Your task to perform on an android device: turn on javascript in the chrome app Image 0: 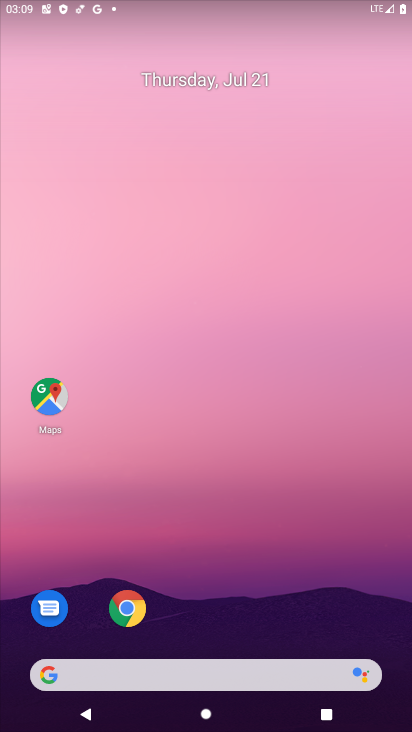
Step 0: click (137, 616)
Your task to perform on an android device: turn on javascript in the chrome app Image 1: 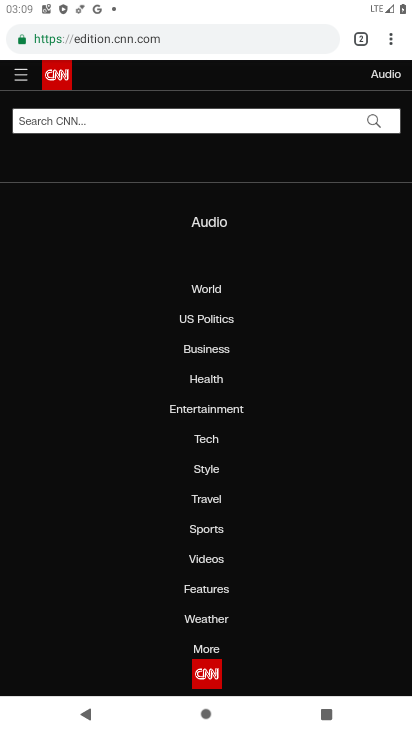
Step 1: drag from (396, 33) to (282, 506)
Your task to perform on an android device: turn on javascript in the chrome app Image 2: 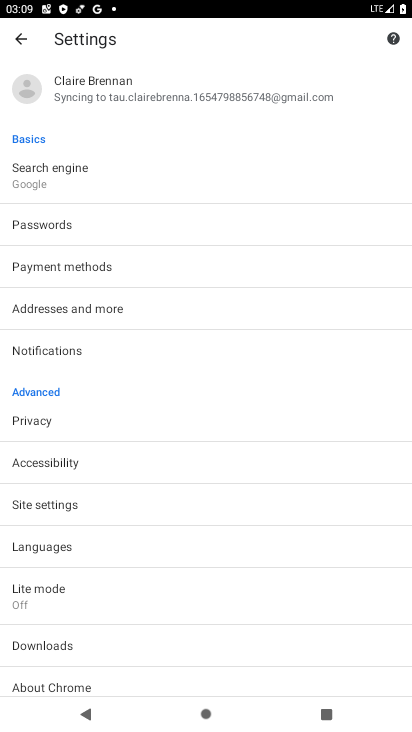
Step 2: click (35, 512)
Your task to perform on an android device: turn on javascript in the chrome app Image 3: 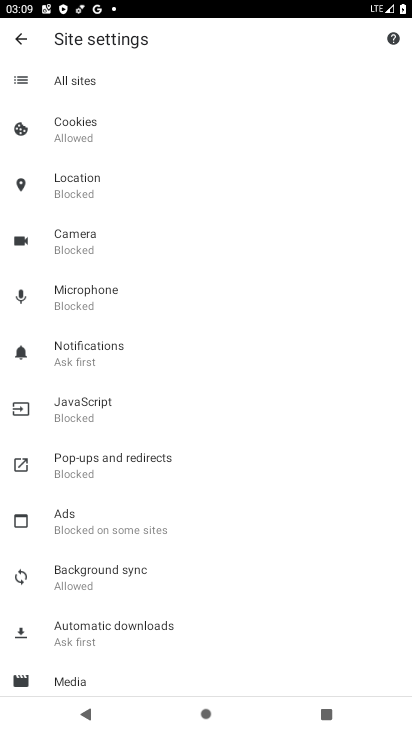
Step 3: click (58, 428)
Your task to perform on an android device: turn on javascript in the chrome app Image 4: 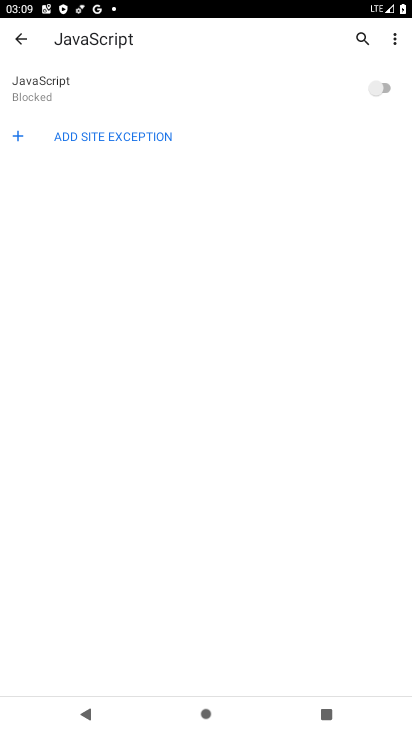
Step 4: click (385, 81)
Your task to perform on an android device: turn on javascript in the chrome app Image 5: 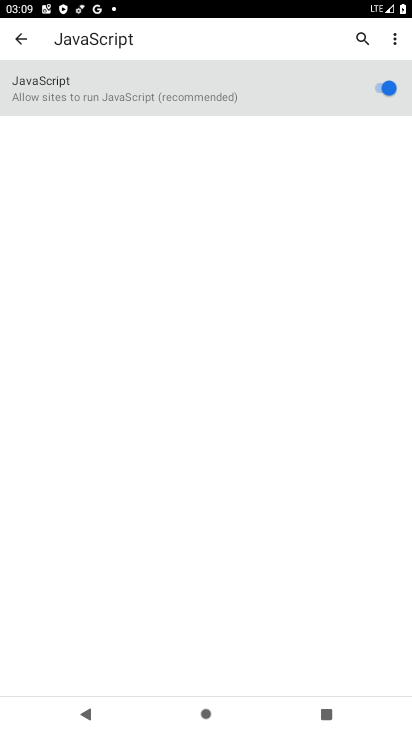
Step 5: task complete